Your task to perform on an android device: toggle pop-ups in chrome Image 0: 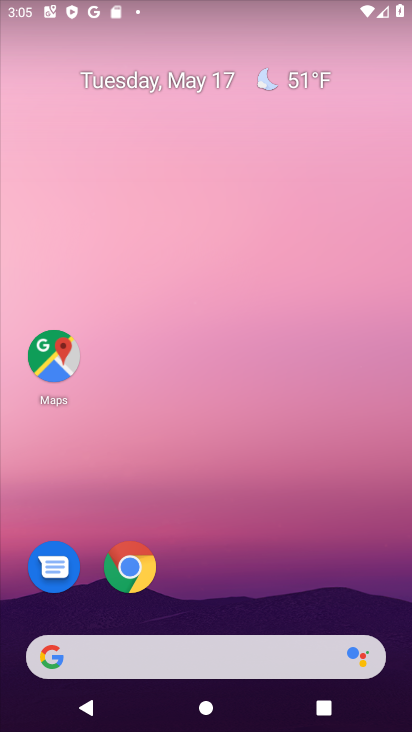
Step 0: click (148, 572)
Your task to perform on an android device: toggle pop-ups in chrome Image 1: 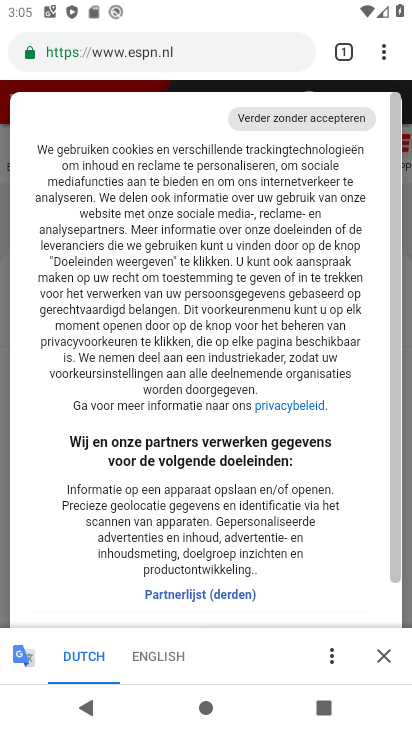
Step 1: drag from (379, 60) to (225, 603)
Your task to perform on an android device: toggle pop-ups in chrome Image 2: 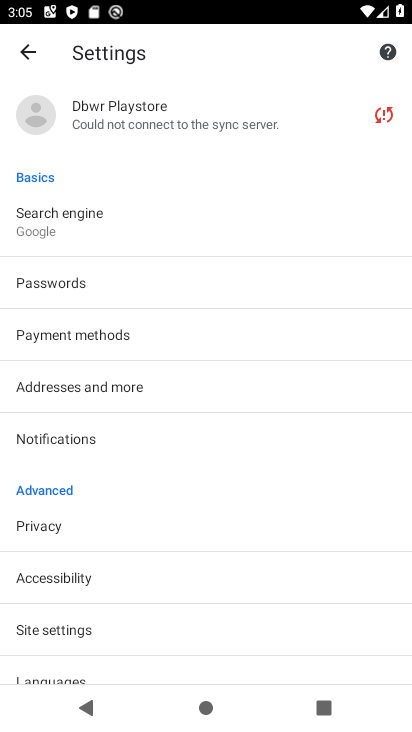
Step 2: click (132, 627)
Your task to perform on an android device: toggle pop-ups in chrome Image 3: 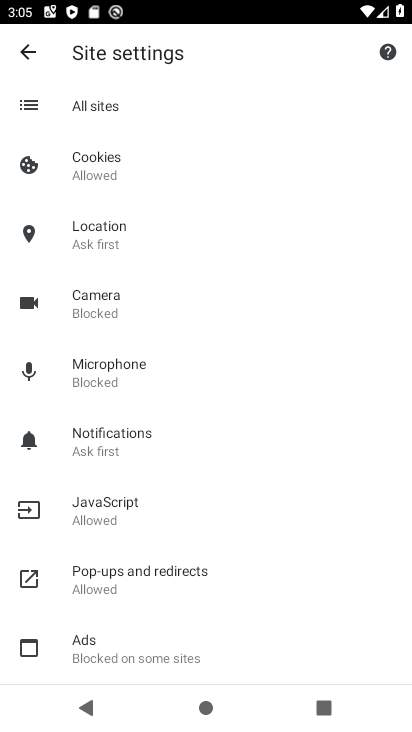
Step 3: click (110, 579)
Your task to perform on an android device: toggle pop-ups in chrome Image 4: 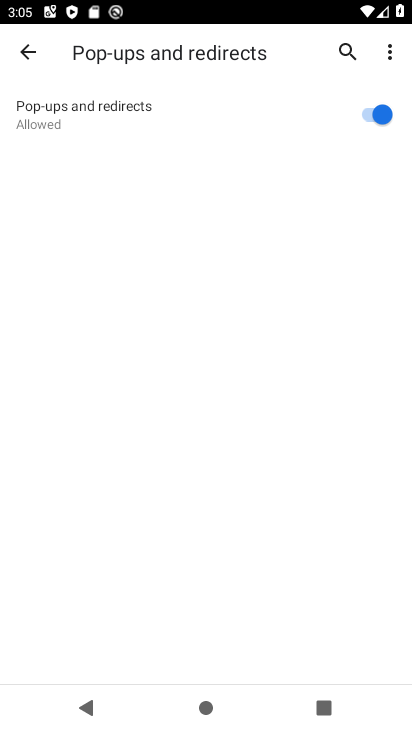
Step 4: click (368, 114)
Your task to perform on an android device: toggle pop-ups in chrome Image 5: 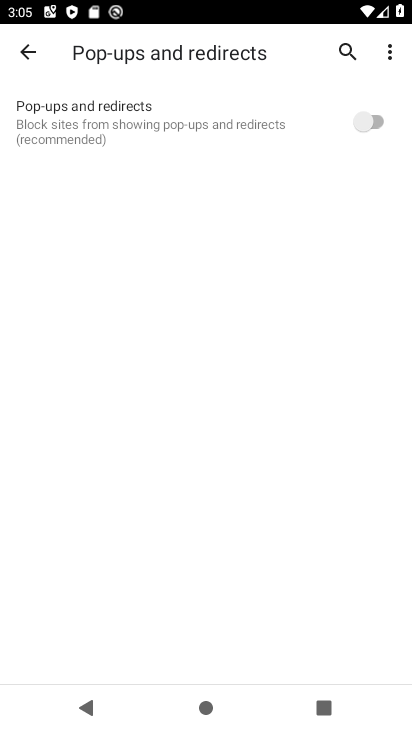
Step 5: task complete